Your task to perform on an android device: turn notification dots off Image 0: 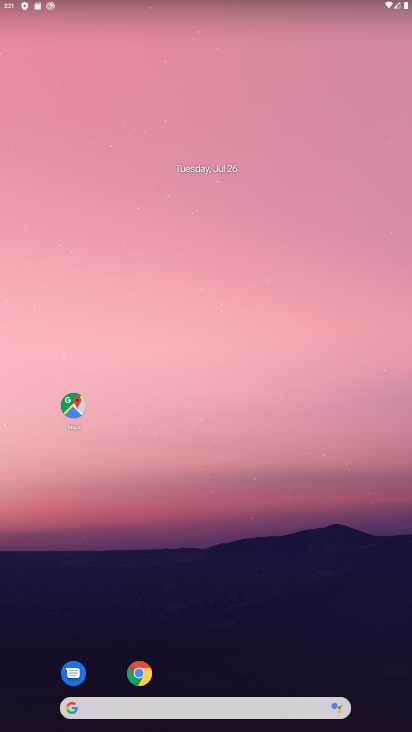
Step 0: press home button
Your task to perform on an android device: turn notification dots off Image 1: 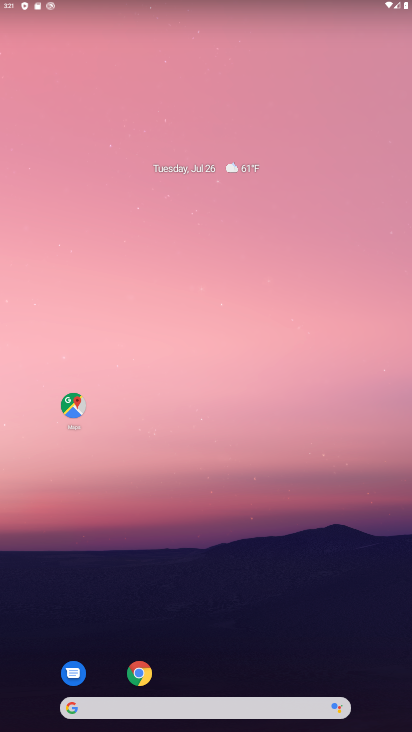
Step 1: drag from (214, 649) to (251, 86)
Your task to perform on an android device: turn notification dots off Image 2: 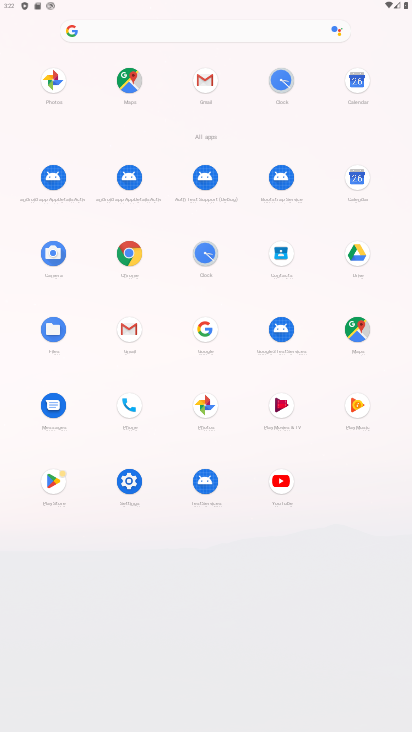
Step 2: click (130, 476)
Your task to perform on an android device: turn notification dots off Image 3: 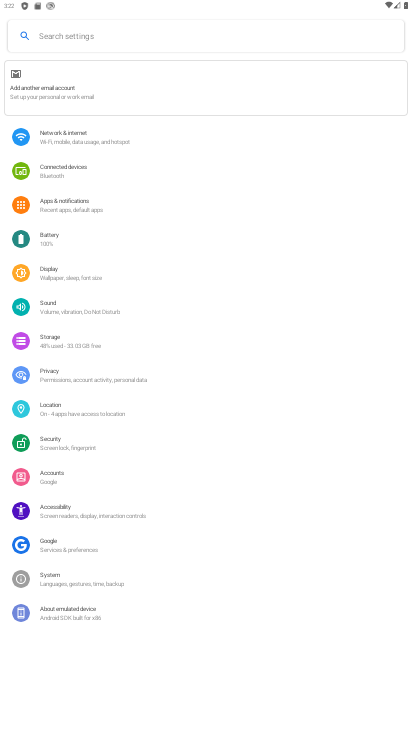
Step 3: click (82, 200)
Your task to perform on an android device: turn notification dots off Image 4: 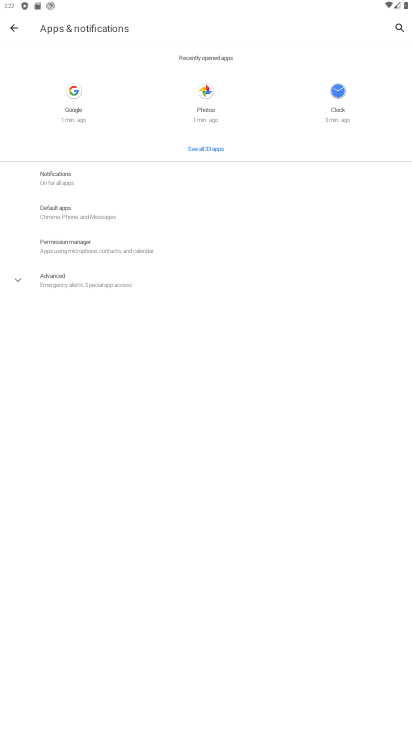
Step 4: click (85, 175)
Your task to perform on an android device: turn notification dots off Image 5: 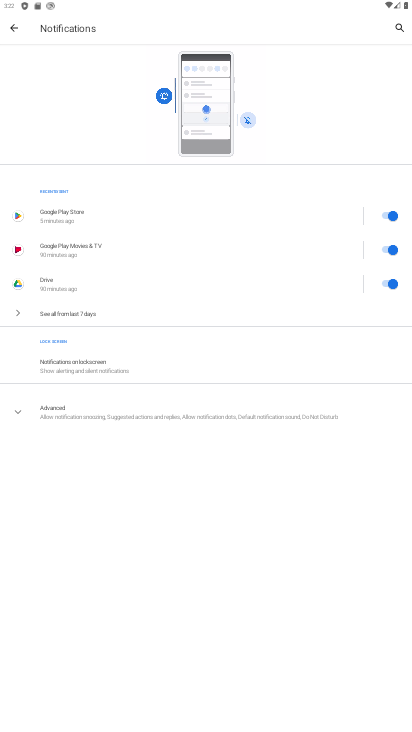
Step 5: click (53, 407)
Your task to perform on an android device: turn notification dots off Image 6: 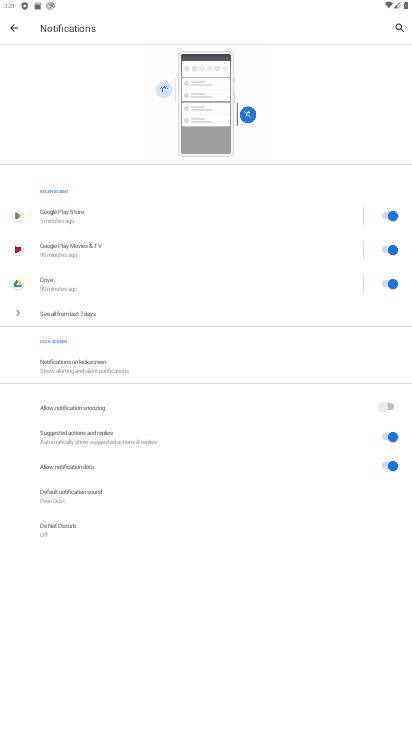
Step 6: click (388, 464)
Your task to perform on an android device: turn notification dots off Image 7: 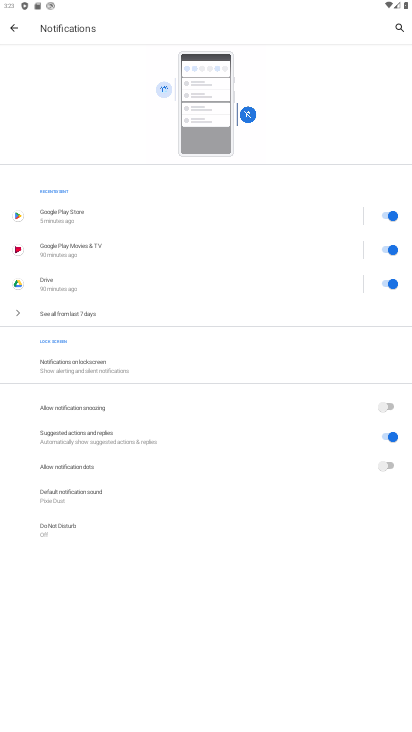
Step 7: task complete